Your task to perform on an android device: Open notification settings Image 0: 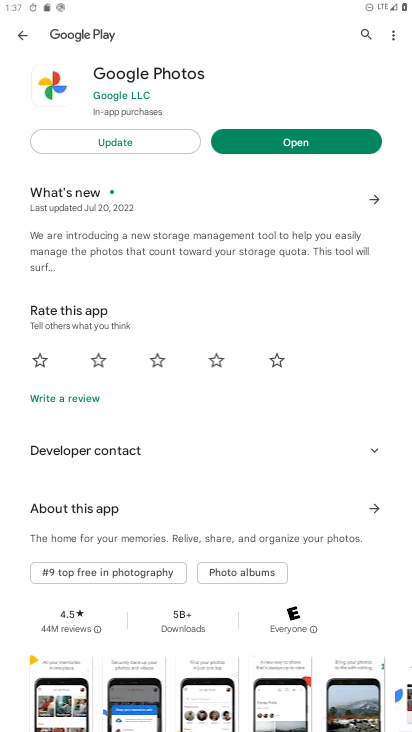
Step 0: press home button
Your task to perform on an android device: Open notification settings Image 1: 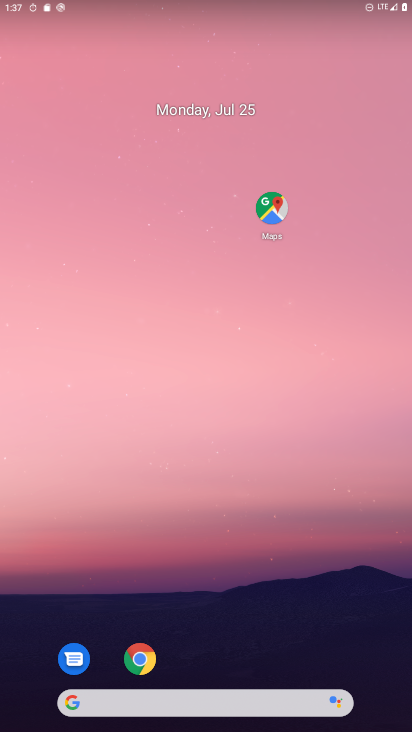
Step 1: drag from (30, 623) to (190, 57)
Your task to perform on an android device: Open notification settings Image 2: 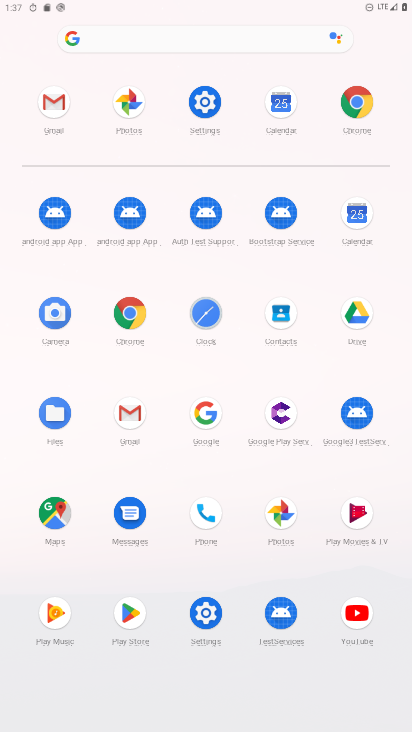
Step 2: click (208, 619)
Your task to perform on an android device: Open notification settings Image 3: 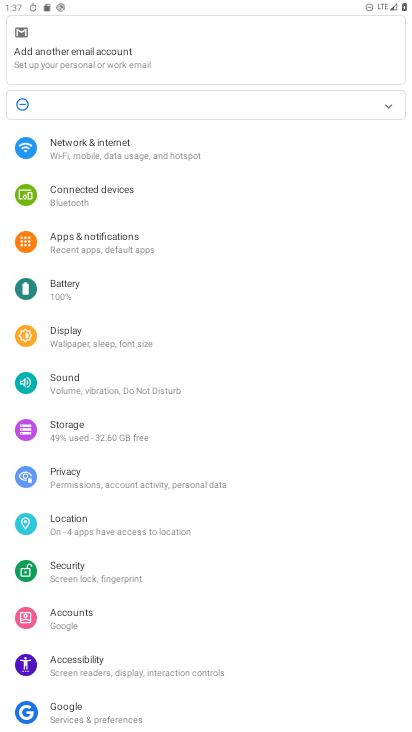
Step 3: click (121, 237)
Your task to perform on an android device: Open notification settings Image 4: 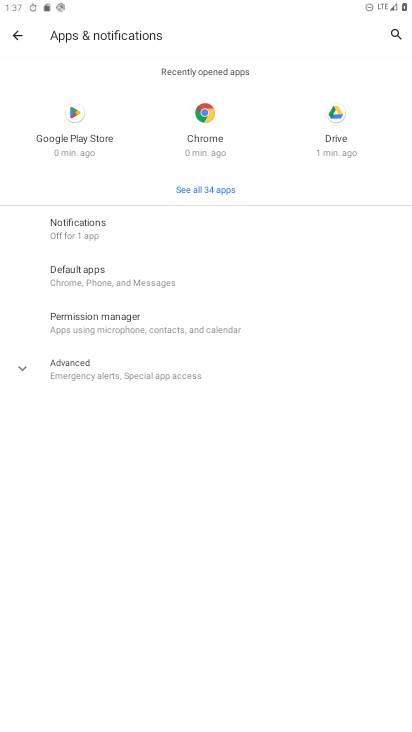
Step 4: task complete